Your task to perform on an android device: turn off airplane mode Image 0: 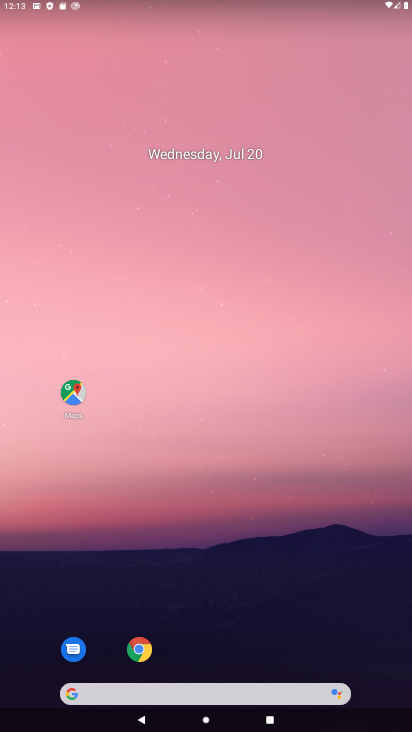
Step 0: drag from (214, 634) to (246, 48)
Your task to perform on an android device: turn off airplane mode Image 1: 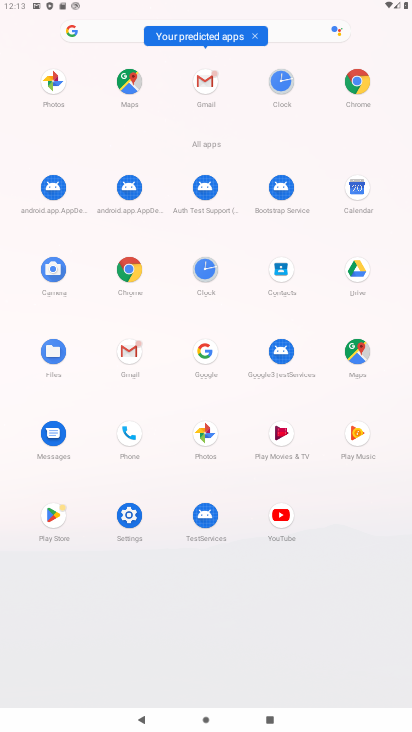
Step 1: click (130, 517)
Your task to perform on an android device: turn off airplane mode Image 2: 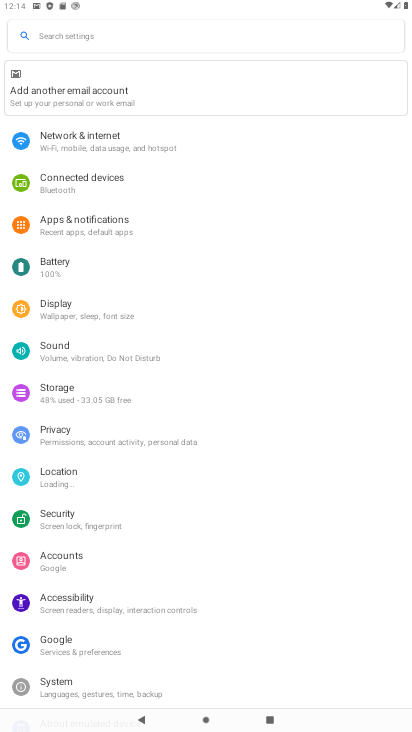
Step 2: click (112, 139)
Your task to perform on an android device: turn off airplane mode Image 3: 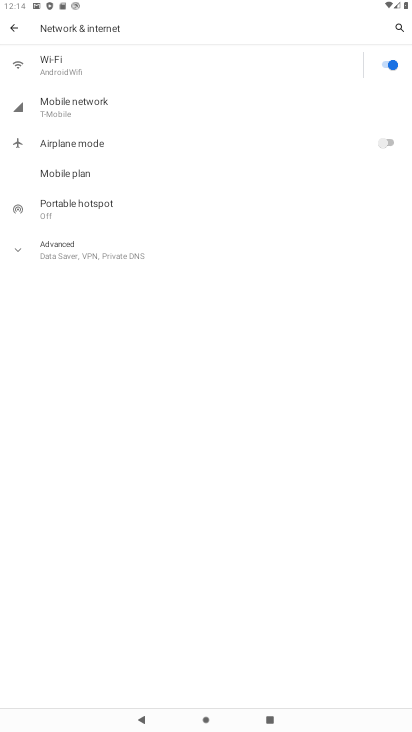
Step 3: task complete